Your task to perform on an android device: Open the Play Movies app and select the watchlist tab. Image 0: 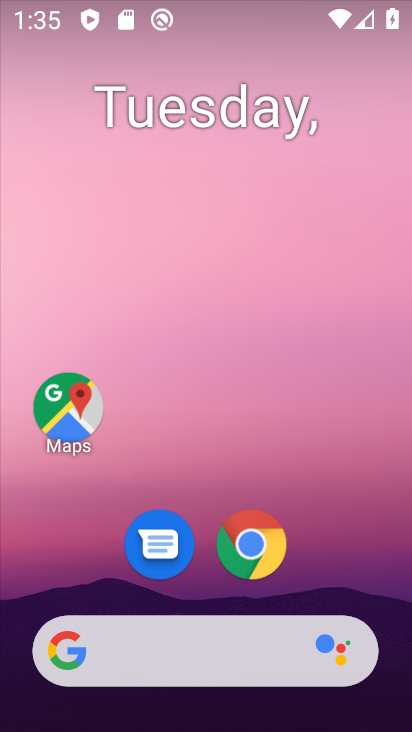
Step 0: drag from (326, 573) to (360, 183)
Your task to perform on an android device: Open the Play Movies app and select the watchlist tab. Image 1: 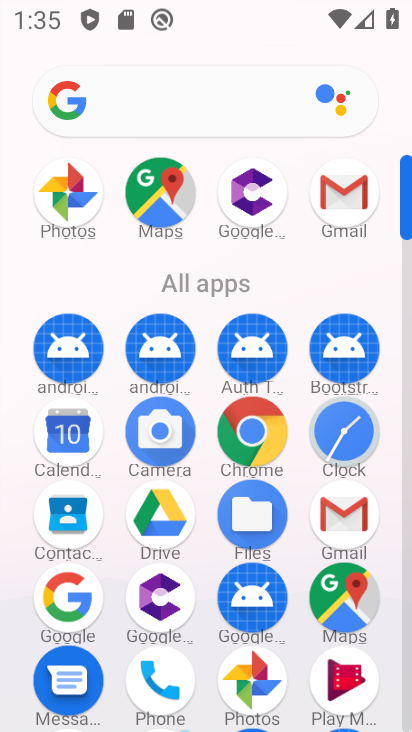
Step 1: click (337, 691)
Your task to perform on an android device: Open the Play Movies app and select the watchlist tab. Image 2: 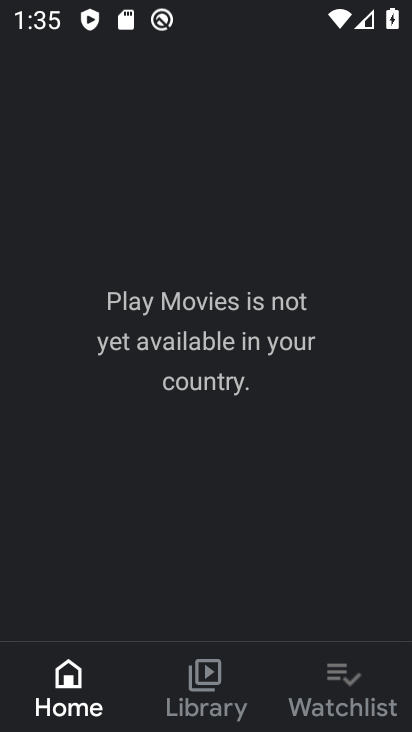
Step 2: click (331, 683)
Your task to perform on an android device: Open the Play Movies app and select the watchlist tab. Image 3: 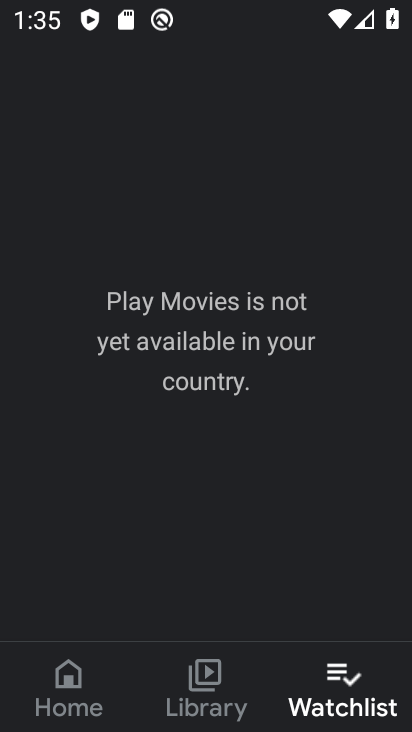
Step 3: task complete